Your task to perform on an android device: Open Reddit.com Image 0: 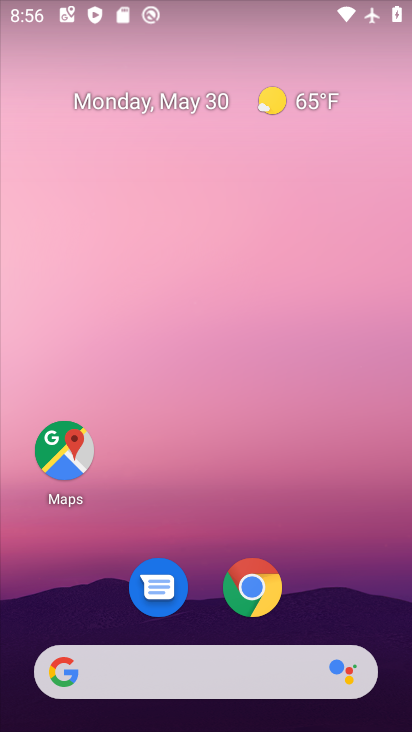
Step 0: press home button
Your task to perform on an android device: Open Reddit.com Image 1: 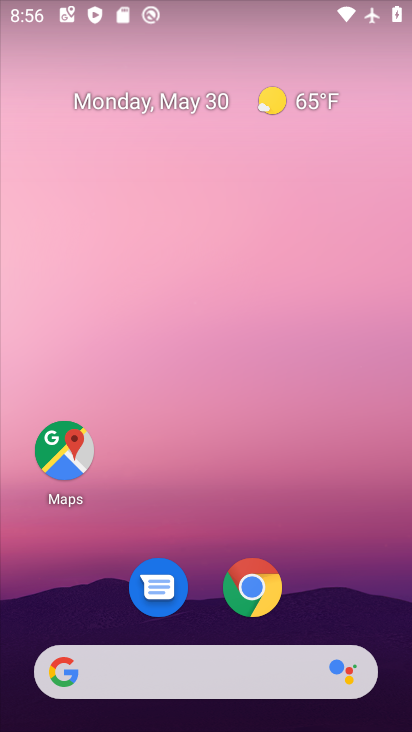
Step 1: click (258, 584)
Your task to perform on an android device: Open Reddit.com Image 2: 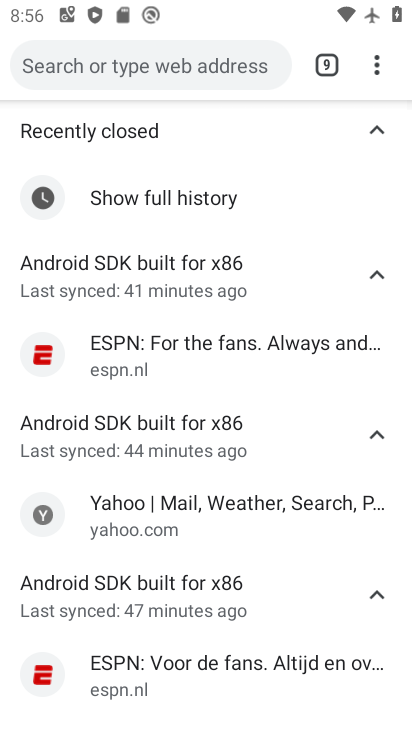
Step 2: drag from (370, 66) to (205, 142)
Your task to perform on an android device: Open Reddit.com Image 3: 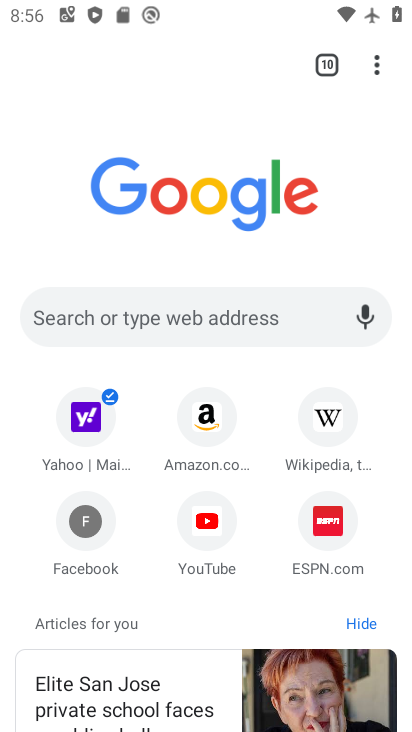
Step 3: click (153, 305)
Your task to perform on an android device: Open Reddit.com Image 4: 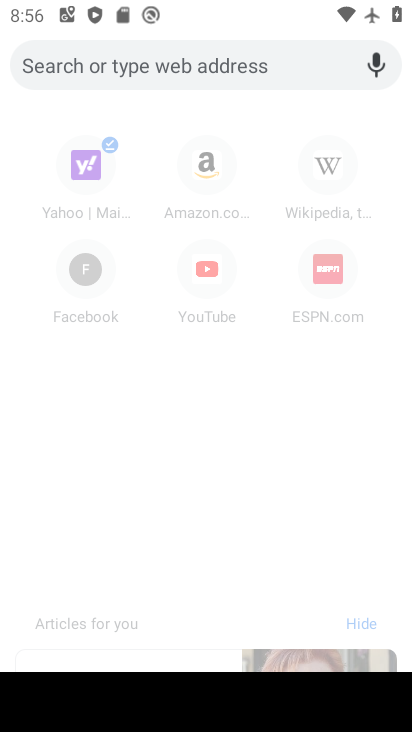
Step 4: type "reddit.com"
Your task to perform on an android device: Open Reddit.com Image 5: 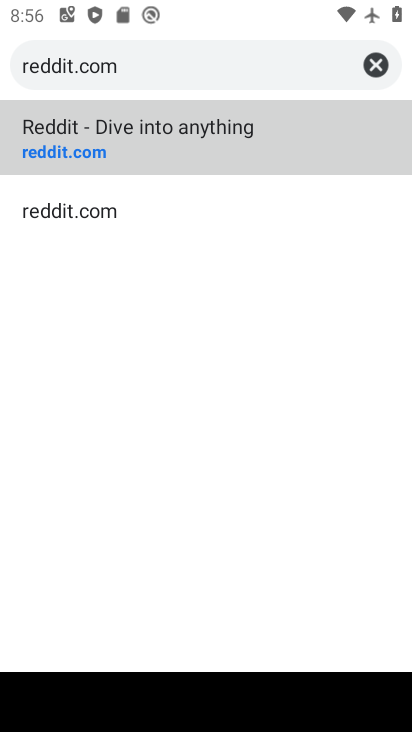
Step 5: click (175, 131)
Your task to perform on an android device: Open Reddit.com Image 6: 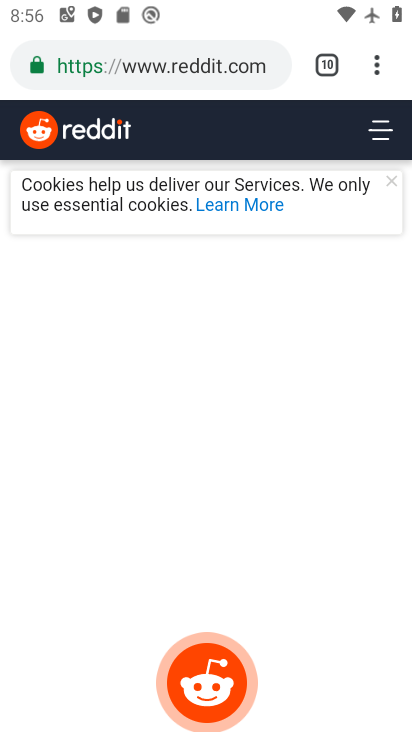
Step 6: task complete